Your task to perform on an android device: change notification settings in the gmail app Image 0: 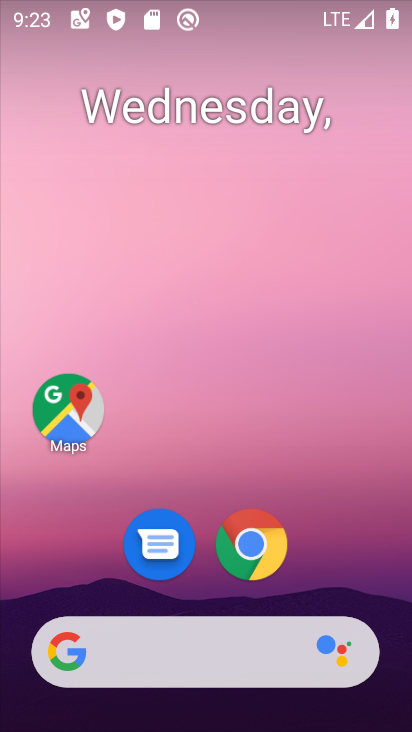
Step 0: drag from (201, 607) to (216, 5)
Your task to perform on an android device: change notification settings in the gmail app Image 1: 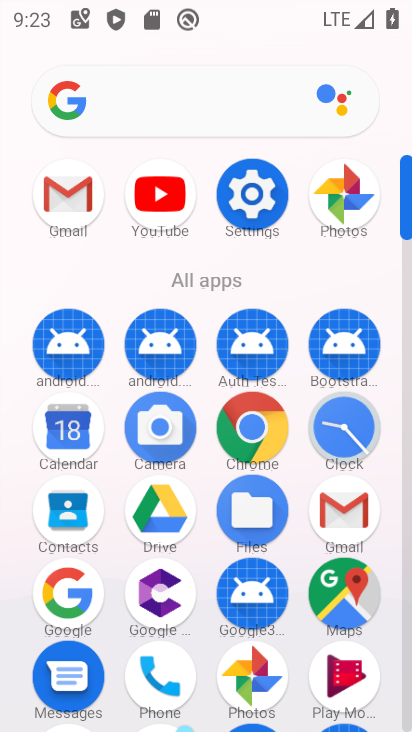
Step 1: click (244, 207)
Your task to perform on an android device: change notification settings in the gmail app Image 2: 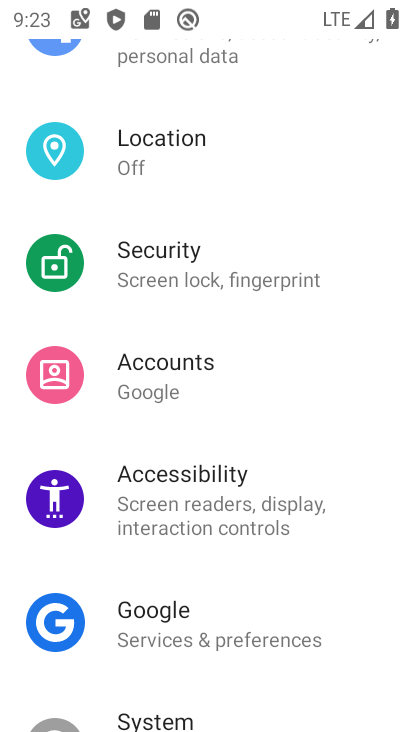
Step 2: drag from (231, 182) to (195, 607)
Your task to perform on an android device: change notification settings in the gmail app Image 3: 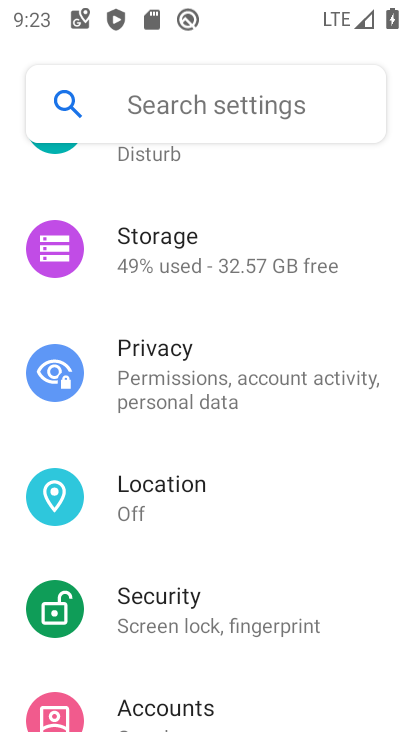
Step 3: drag from (200, 187) to (120, 728)
Your task to perform on an android device: change notification settings in the gmail app Image 4: 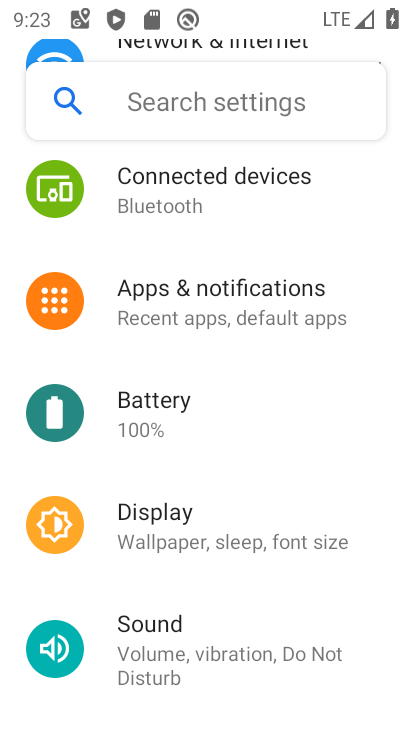
Step 4: click (215, 291)
Your task to perform on an android device: change notification settings in the gmail app Image 5: 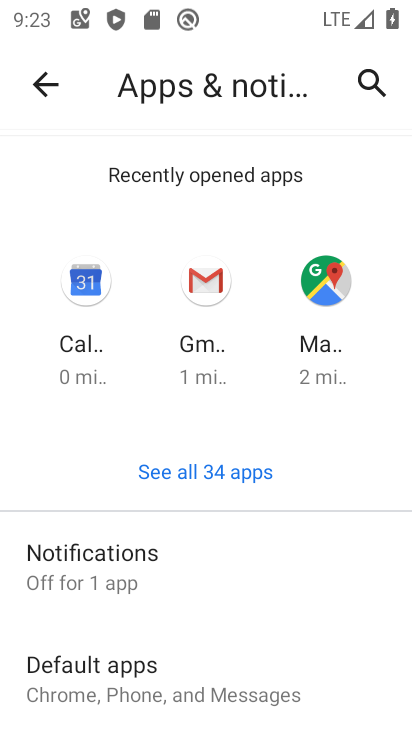
Step 5: click (210, 304)
Your task to perform on an android device: change notification settings in the gmail app Image 6: 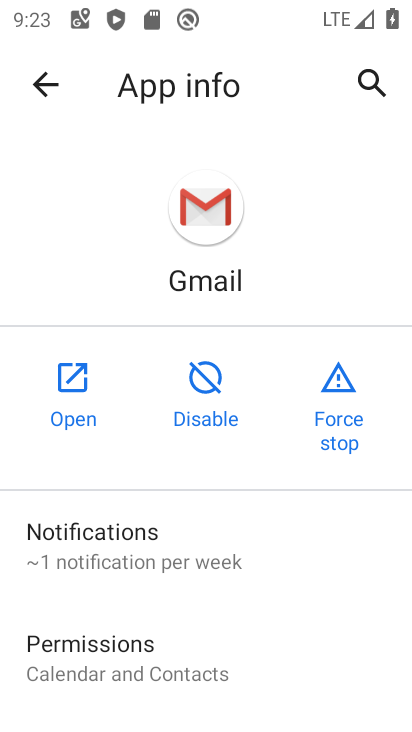
Step 6: click (96, 567)
Your task to perform on an android device: change notification settings in the gmail app Image 7: 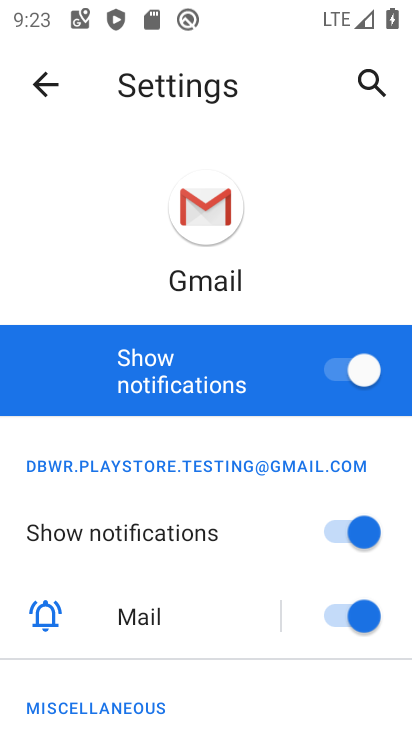
Step 7: click (342, 386)
Your task to perform on an android device: change notification settings in the gmail app Image 8: 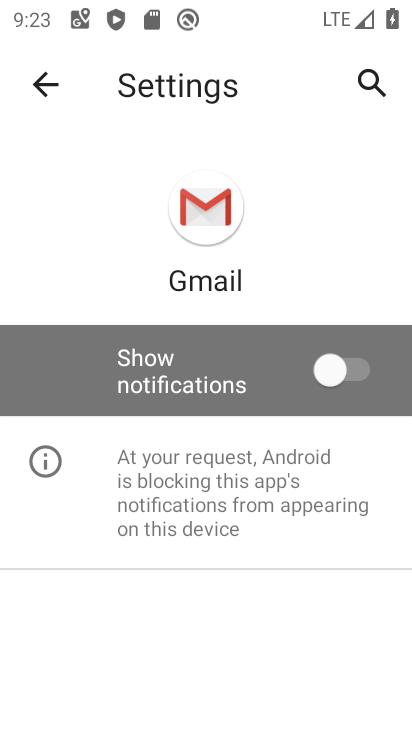
Step 8: task complete